Your task to perform on an android device: delete location history Image 0: 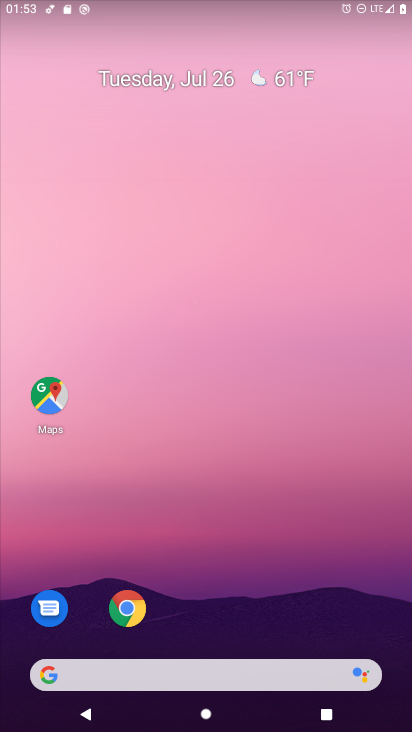
Step 0: drag from (50, 585) to (262, 147)
Your task to perform on an android device: delete location history Image 1: 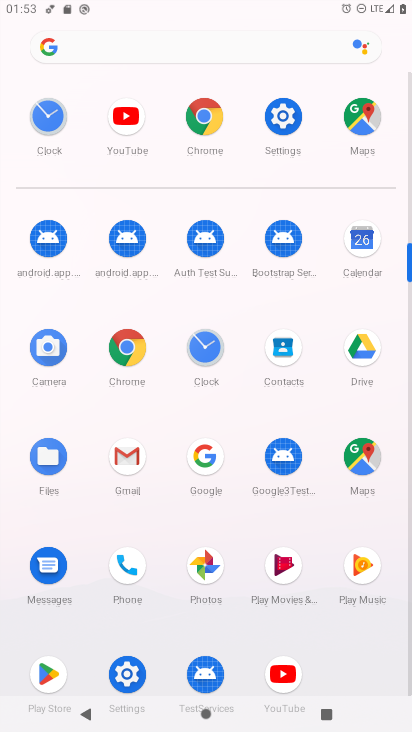
Step 1: click (121, 675)
Your task to perform on an android device: delete location history Image 2: 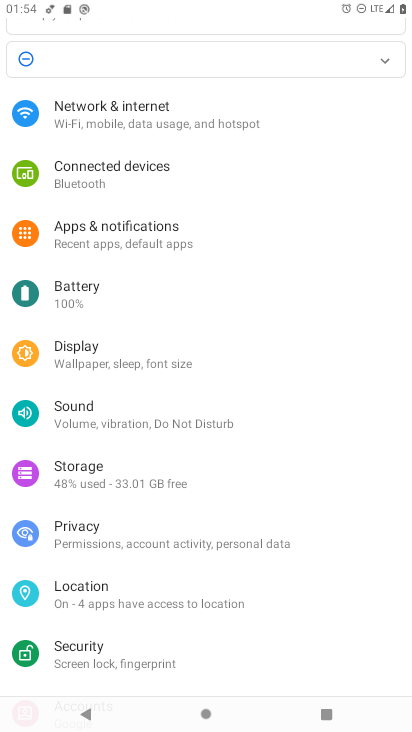
Step 2: click (94, 588)
Your task to perform on an android device: delete location history Image 3: 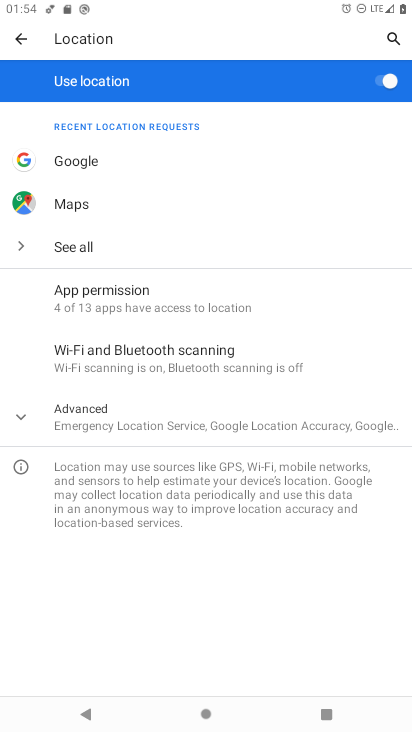
Step 3: click (124, 420)
Your task to perform on an android device: delete location history Image 4: 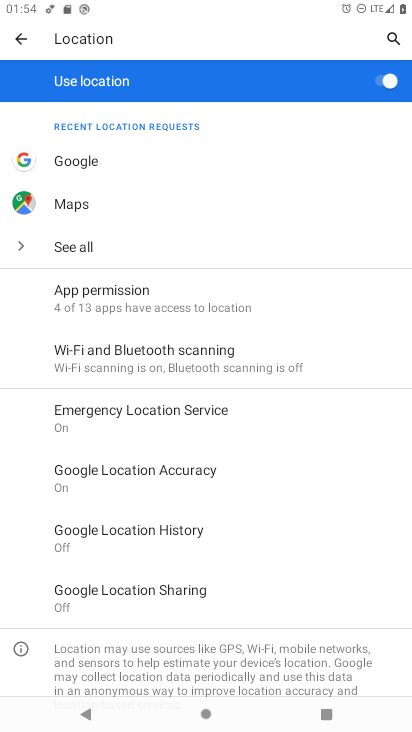
Step 4: click (177, 528)
Your task to perform on an android device: delete location history Image 5: 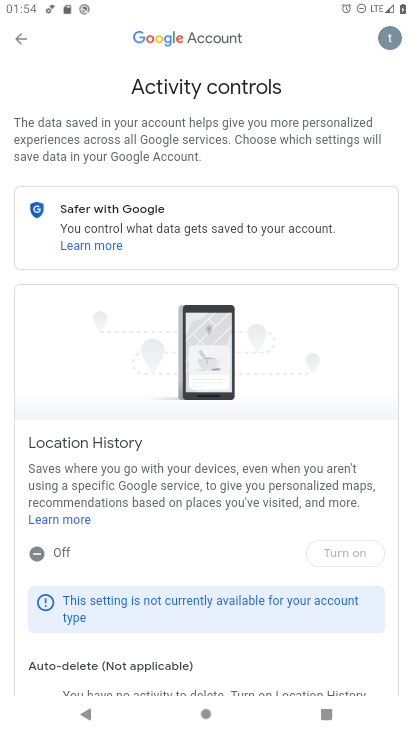
Step 5: drag from (0, 659) to (243, 168)
Your task to perform on an android device: delete location history Image 6: 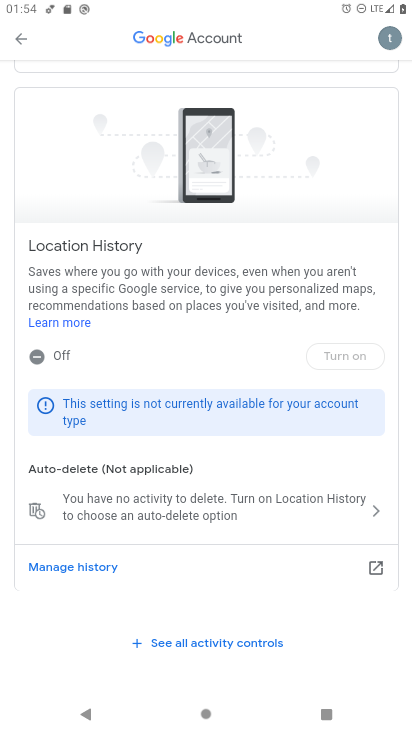
Step 6: click (326, 505)
Your task to perform on an android device: delete location history Image 7: 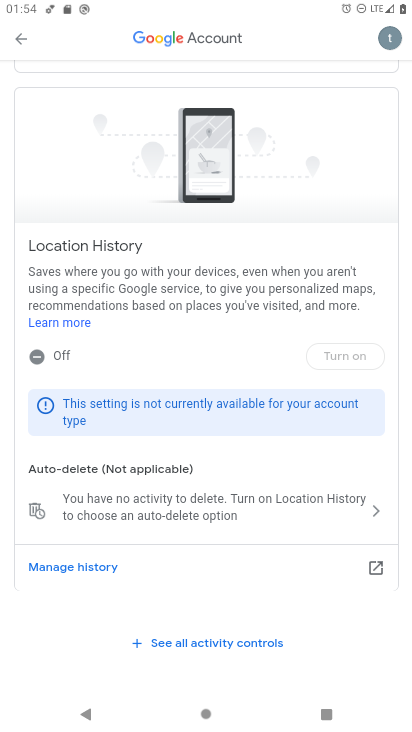
Step 7: task complete